Your task to perform on an android device: open app "PlayWell" Image 0: 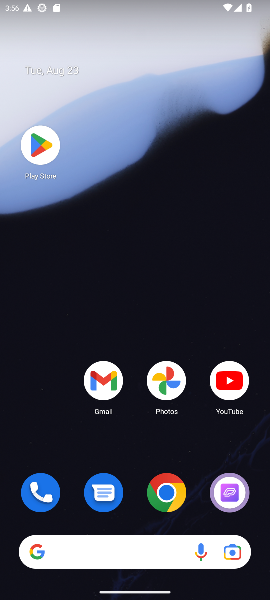
Step 0: click (61, 560)
Your task to perform on an android device: open app "PlayWell" Image 1: 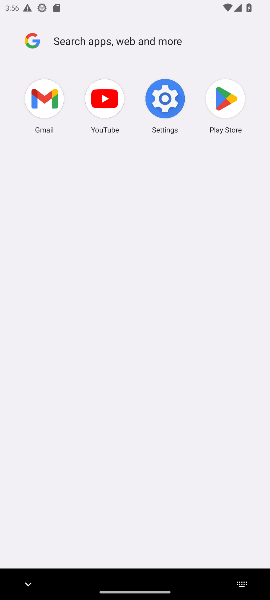
Step 1: click (236, 503)
Your task to perform on an android device: open app "PlayWell" Image 2: 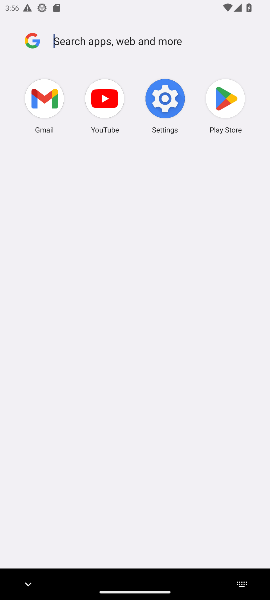
Step 2: task complete